Your task to perform on an android device: Open the Play Movies app and select the watchlist tab. Image 0: 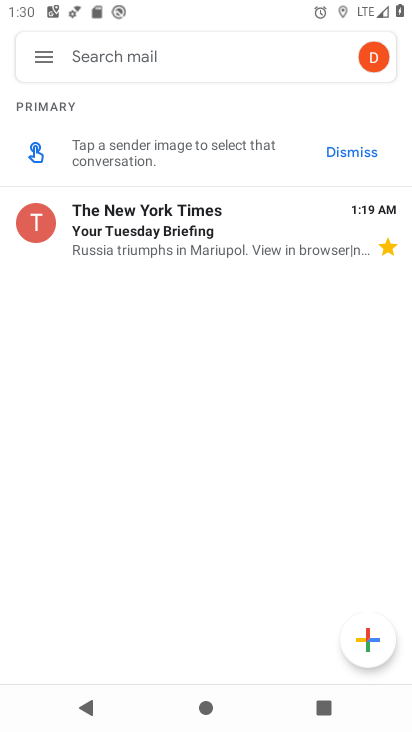
Step 0: drag from (207, 605) to (375, 12)
Your task to perform on an android device: Open the Play Movies app and select the watchlist tab. Image 1: 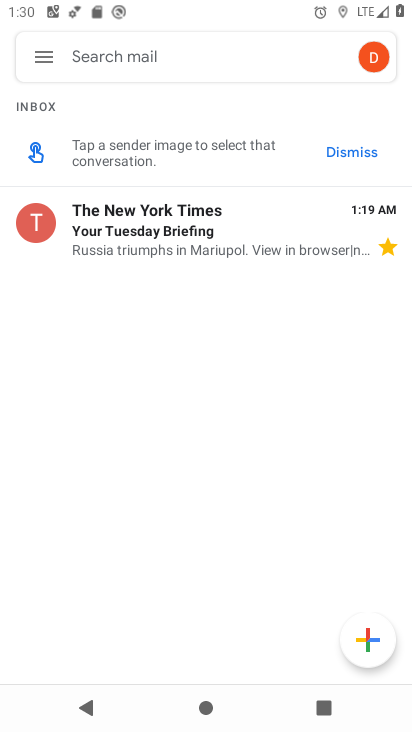
Step 1: press home button
Your task to perform on an android device: Open the Play Movies app and select the watchlist tab. Image 2: 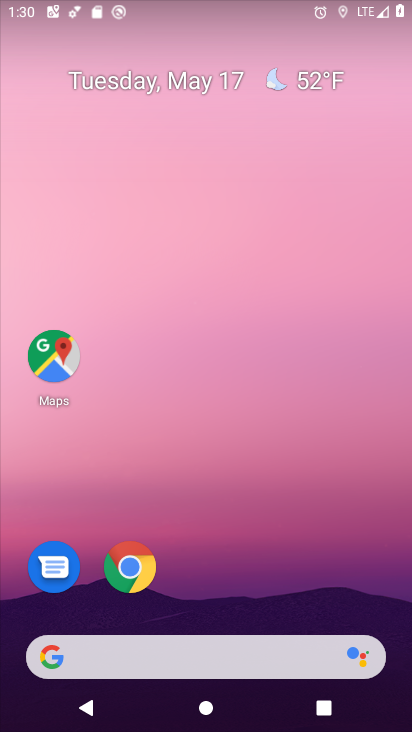
Step 2: drag from (193, 607) to (304, 162)
Your task to perform on an android device: Open the Play Movies app and select the watchlist tab. Image 3: 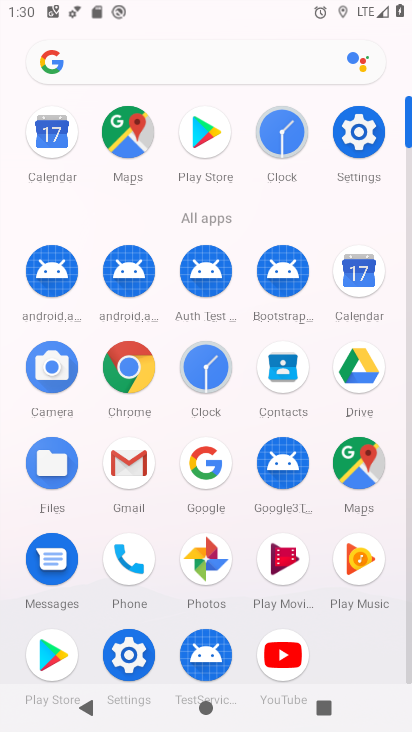
Step 3: click (291, 573)
Your task to perform on an android device: Open the Play Movies app and select the watchlist tab. Image 4: 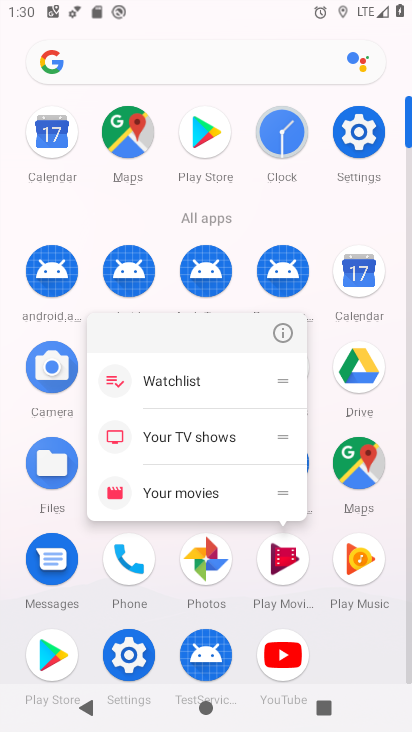
Step 4: click (279, 555)
Your task to perform on an android device: Open the Play Movies app and select the watchlist tab. Image 5: 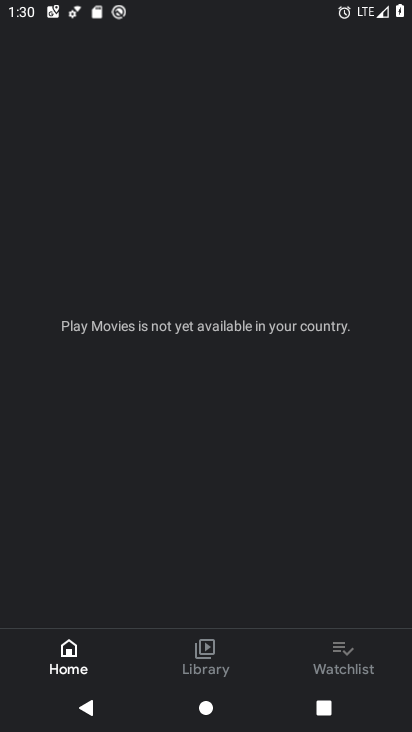
Step 5: click (340, 656)
Your task to perform on an android device: Open the Play Movies app and select the watchlist tab. Image 6: 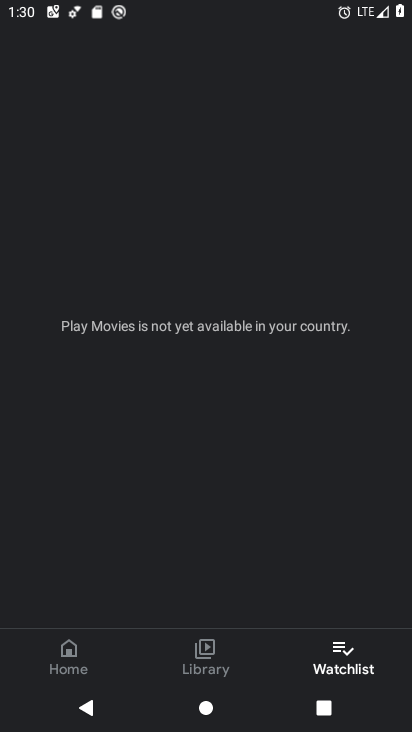
Step 6: task complete